Your task to perform on an android device: change keyboard looks Image 0: 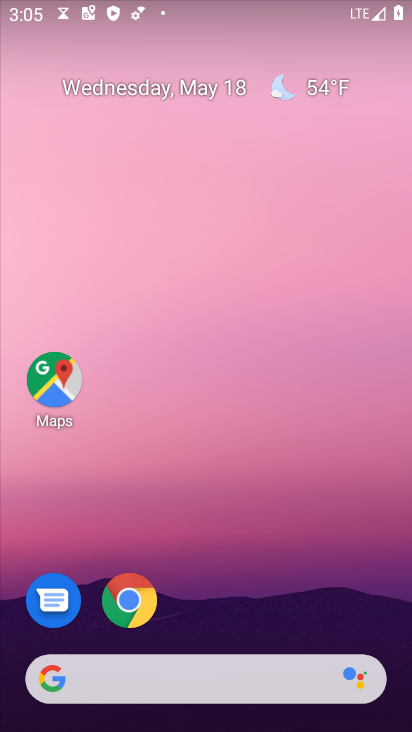
Step 0: press home button
Your task to perform on an android device: change keyboard looks Image 1: 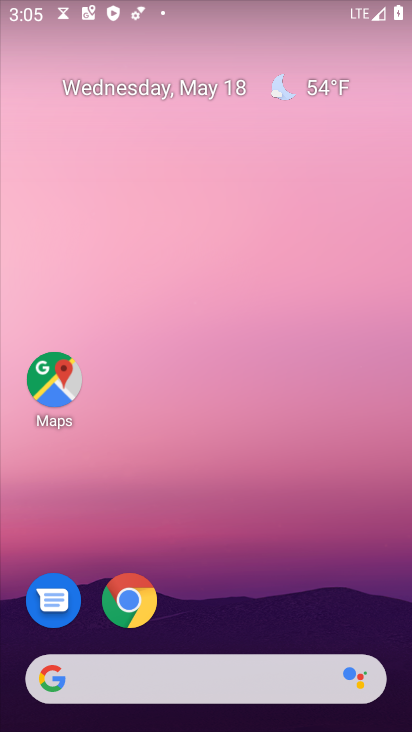
Step 1: drag from (196, 664) to (338, 75)
Your task to perform on an android device: change keyboard looks Image 2: 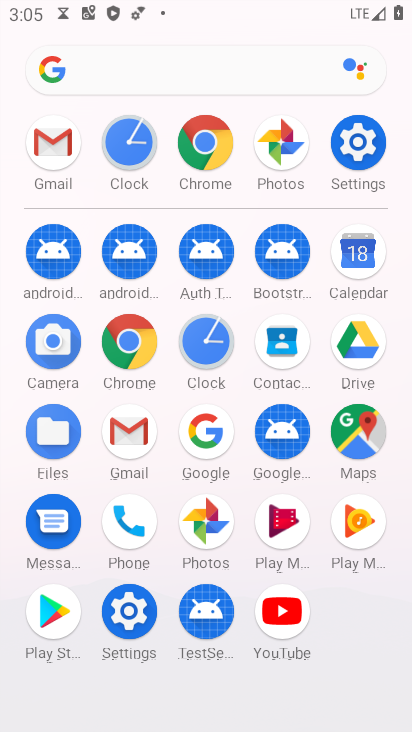
Step 2: click (357, 153)
Your task to perform on an android device: change keyboard looks Image 3: 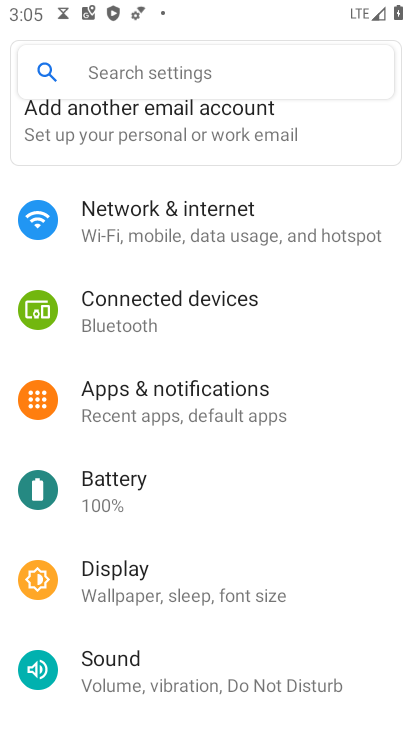
Step 3: drag from (245, 559) to (301, 281)
Your task to perform on an android device: change keyboard looks Image 4: 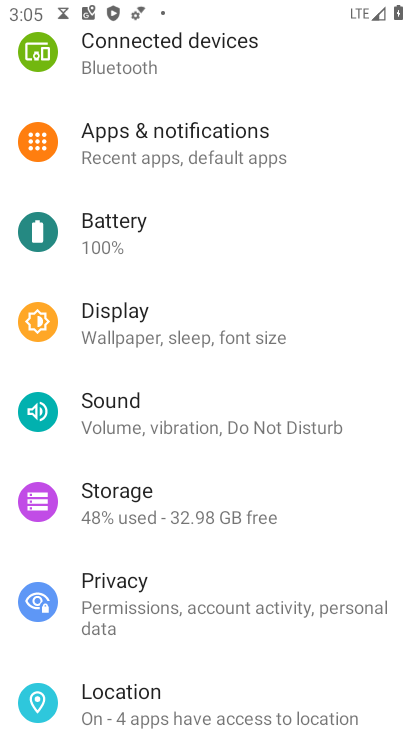
Step 4: drag from (219, 629) to (344, 165)
Your task to perform on an android device: change keyboard looks Image 5: 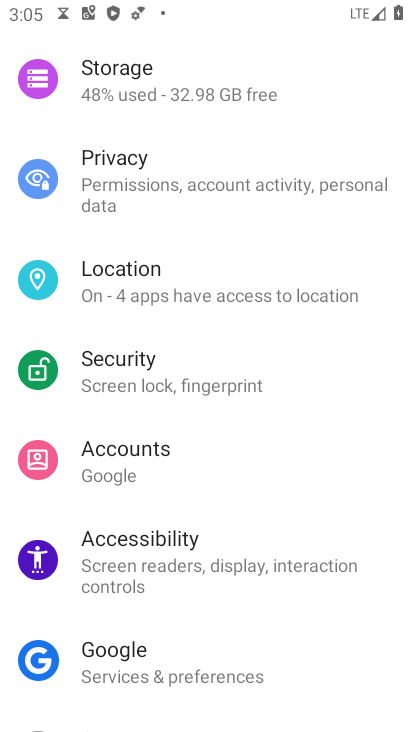
Step 5: drag from (193, 553) to (275, 193)
Your task to perform on an android device: change keyboard looks Image 6: 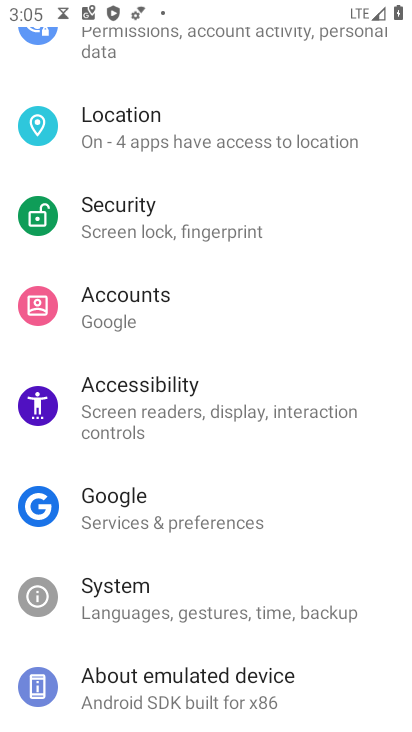
Step 6: click (139, 587)
Your task to perform on an android device: change keyboard looks Image 7: 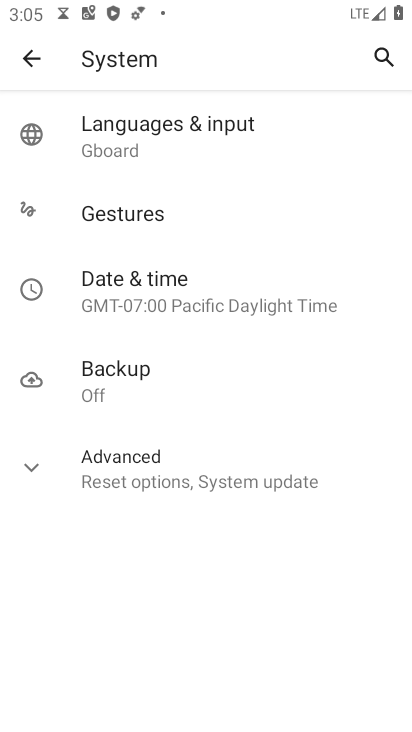
Step 7: click (187, 129)
Your task to perform on an android device: change keyboard looks Image 8: 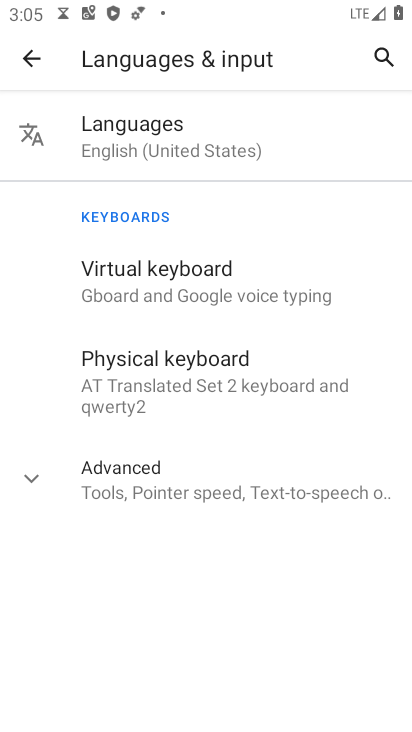
Step 8: click (178, 274)
Your task to perform on an android device: change keyboard looks Image 9: 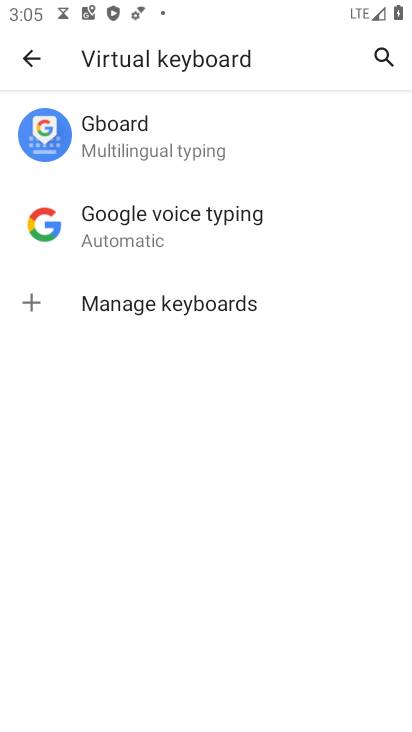
Step 9: click (167, 143)
Your task to perform on an android device: change keyboard looks Image 10: 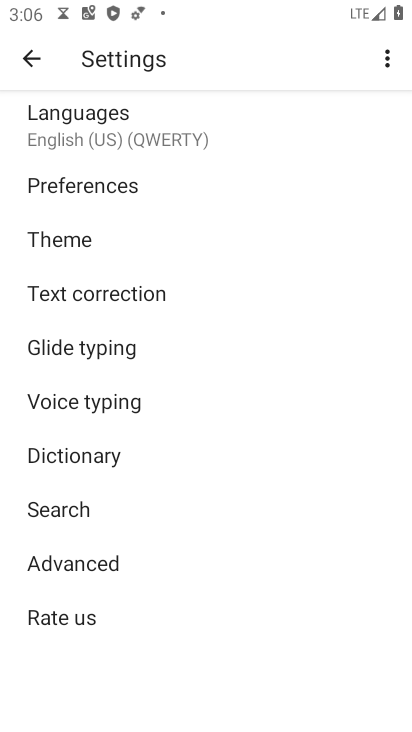
Step 10: click (84, 249)
Your task to perform on an android device: change keyboard looks Image 11: 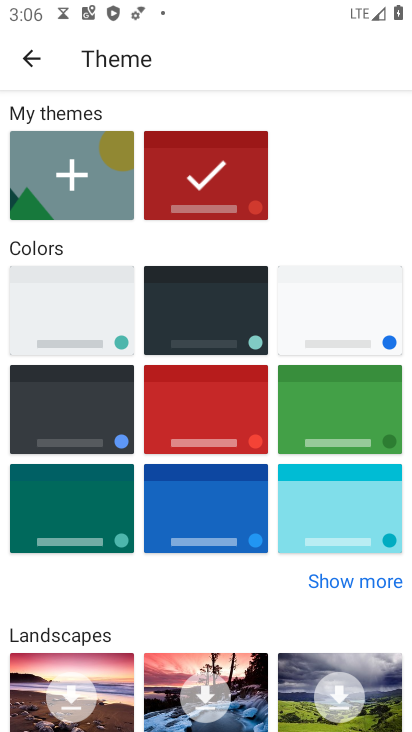
Step 11: click (234, 489)
Your task to perform on an android device: change keyboard looks Image 12: 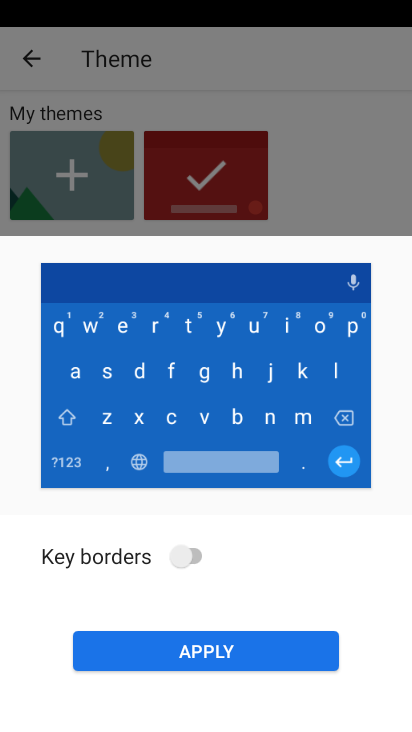
Step 12: click (207, 639)
Your task to perform on an android device: change keyboard looks Image 13: 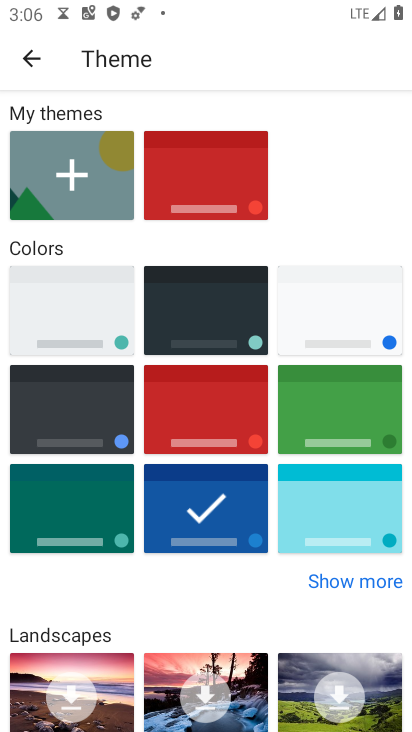
Step 13: task complete